Your task to perform on an android device: Show me recent news Image 0: 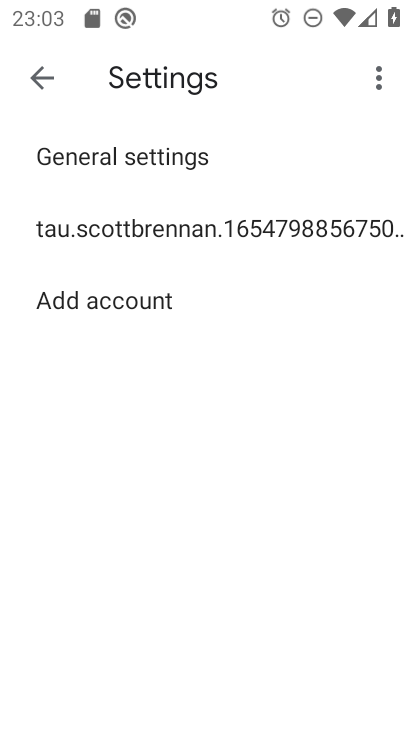
Step 0: press home button
Your task to perform on an android device: Show me recent news Image 1: 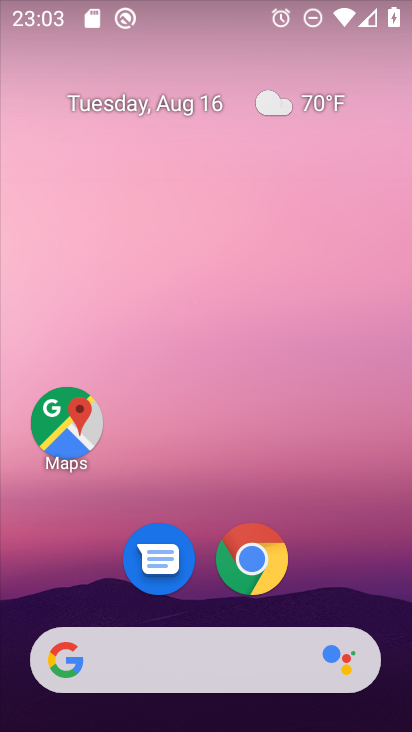
Step 1: drag from (171, 643) to (216, 158)
Your task to perform on an android device: Show me recent news Image 2: 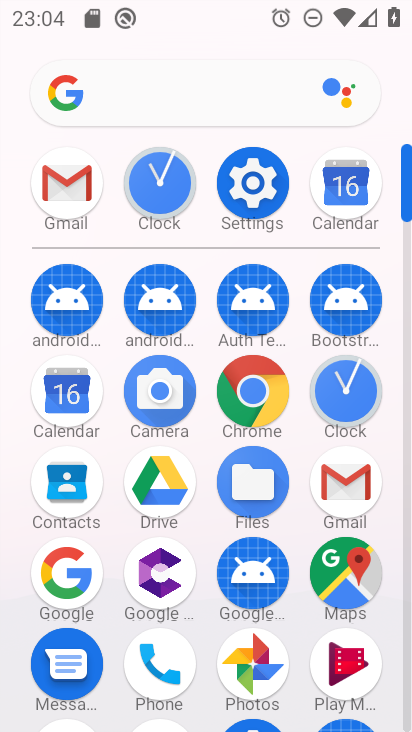
Step 2: click (67, 565)
Your task to perform on an android device: Show me recent news Image 3: 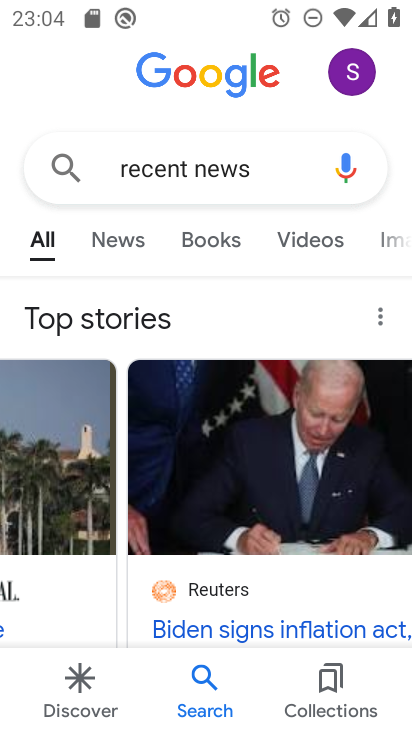
Step 3: drag from (90, 443) to (352, 497)
Your task to perform on an android device: Show me recent news Image 4: 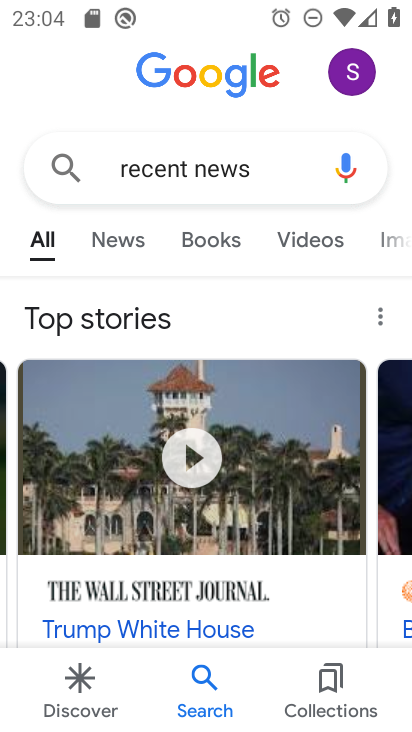
Step 4: drag from (47, 445) to (377, 483)
Your task to perform on an android device: Show me recent news Image 5: 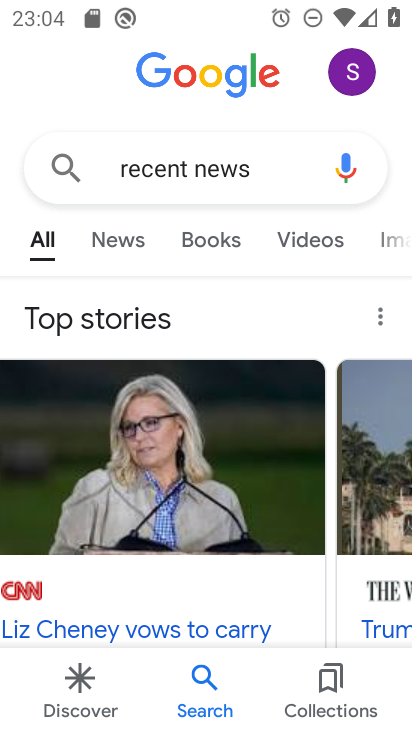
Step 5: click (122, 475)
Your task to perform on an android device: Show me recent news Image 6: 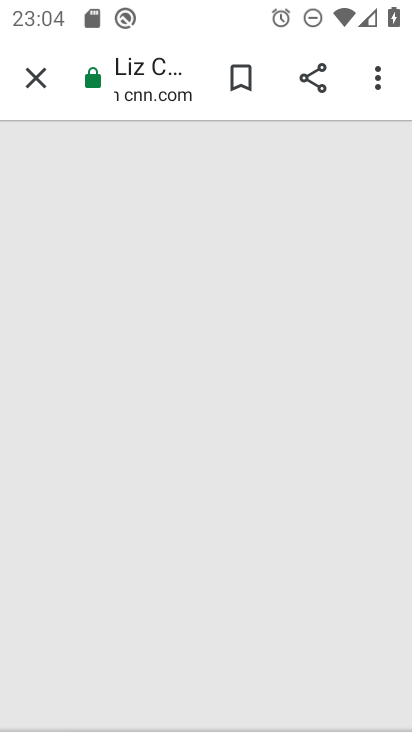
Step 6: task complete